Your task to perform on an android device: Open Youtube and go to "Your channel" Image 0: 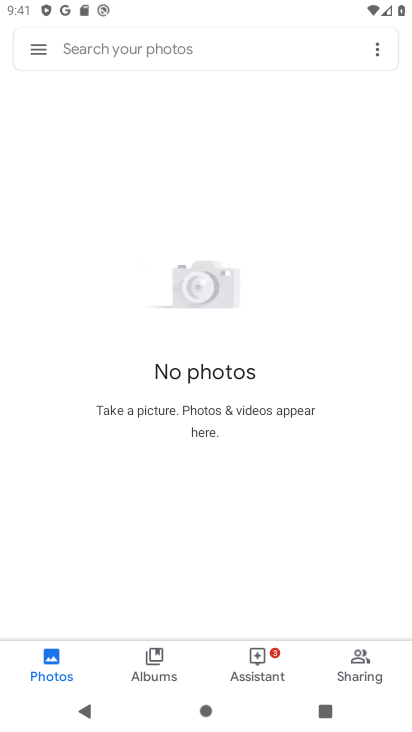
Step 0: press home button
Your task to perform on an android device: Open Youtube and go to "Your channel" Image 1: 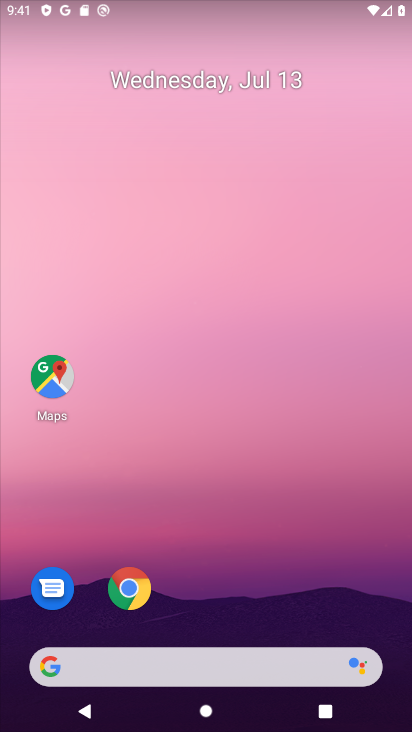
Step 1: drag from (194, 563) to (153, 128)
Your task to perform on an android device: Open Youtube and go to "Your channel" Image 2: 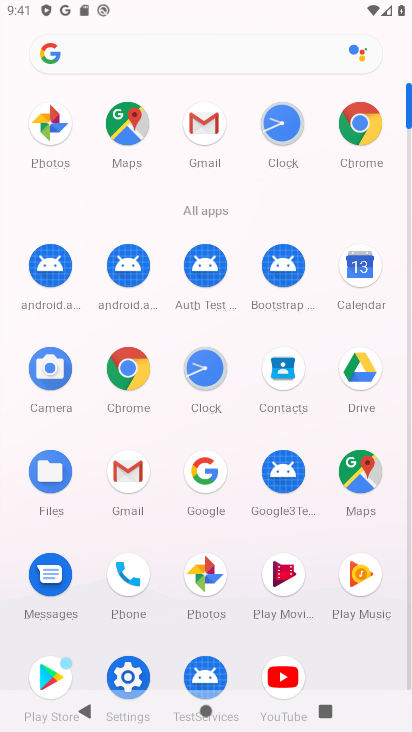
Step 2: click (278, 670)
Your task to perform on an android device: Open Youtube and go to "Your channel" Image 3: 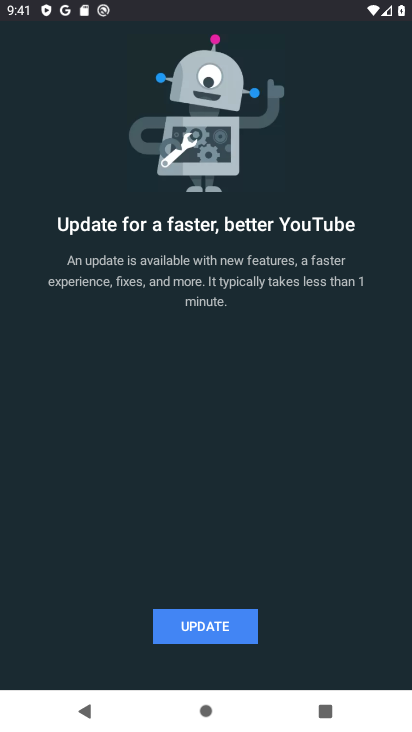
Step 3: click (171, 618)
Your task to perform on an android device: Open Youtube and go to "Your channel" Image 4: 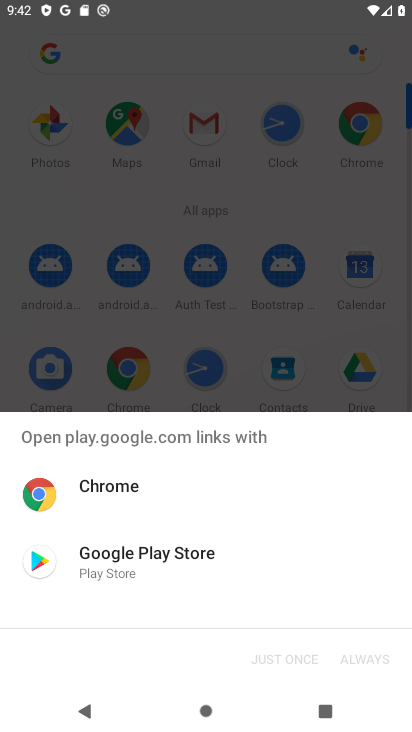
Step 4: click (123, 549)
Your task to perform on an android device: Open Youtube and go to "Your channel" Image 5: 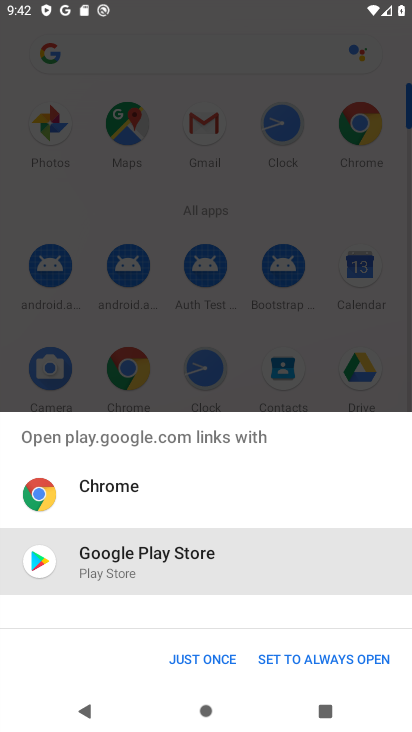
Step 5: click (215, 647)
Your task to perform on an android device: Open Youtube and go to "Your channel" Image 6: 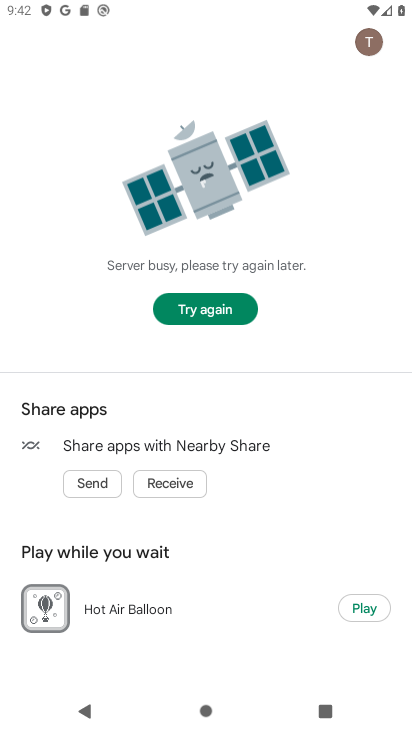
Step 6: click (194, 303)
Your task to perform on an android device: Open Youtube and go to "Your channel" Image 7: 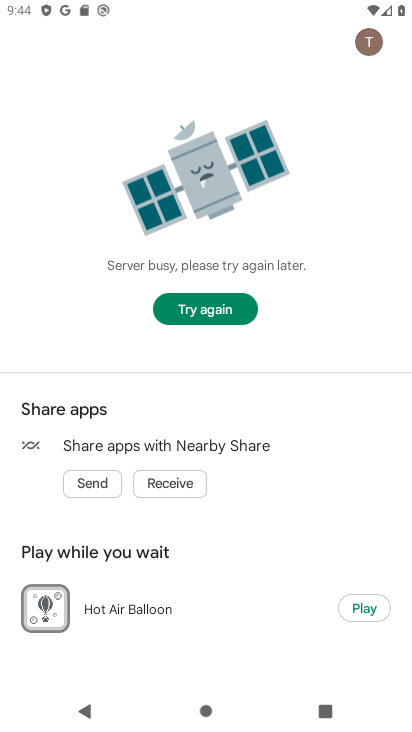
Step 7: task complete